Your task to perform on an android device: turn on wifi Image 0: 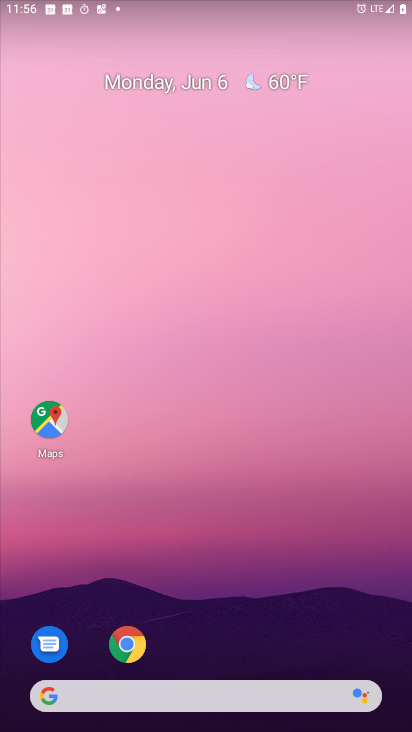
Step 0: drag from (168, 18) to (186, 646)
Your task to perform on an android device: turn on wifi Image 1: 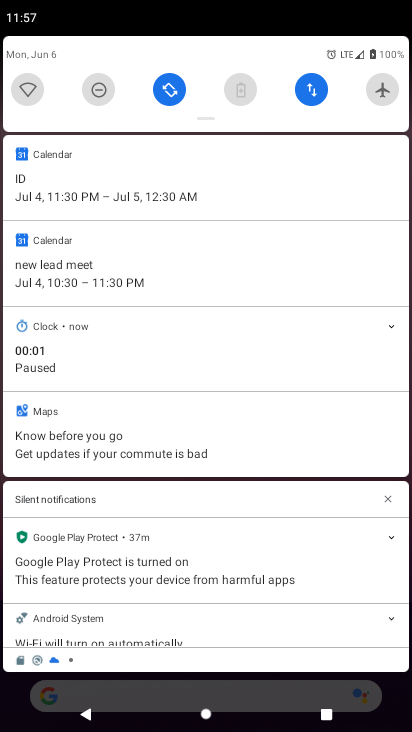
Step 1: click (28, 91)
Your task to perform on an android device: turn on wifi Image 2: 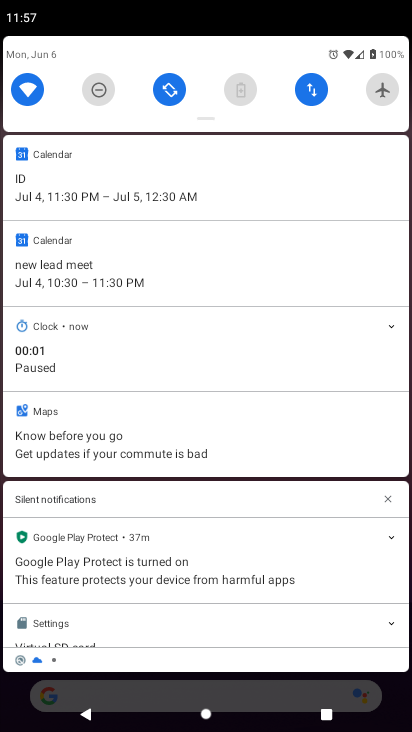
Step 2: task complete